Your task to perform on an android device: add a label to a message in the gmail app Image 0: 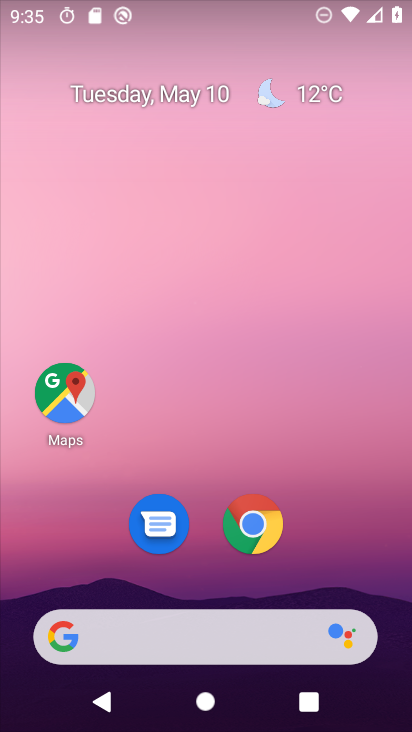
Step 0: drag from (324, 511) to (293, 24)
Your task to perform on an android device: add a label to a message in the gmail app Image 1: 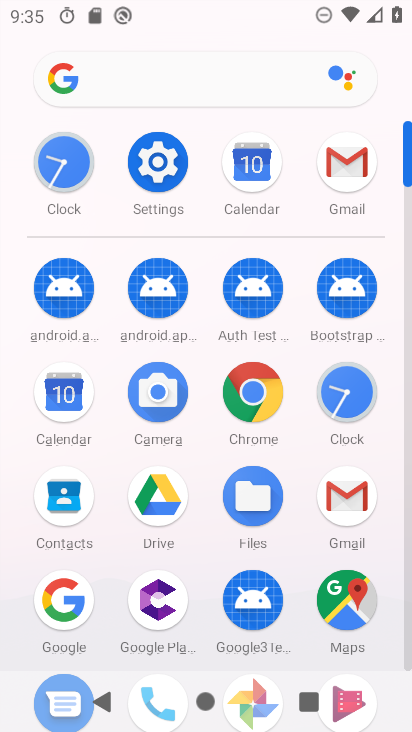
Step 1: click (342, 151)
Your task to perform on an android device: add a label to a message in the gmail app Image 2: 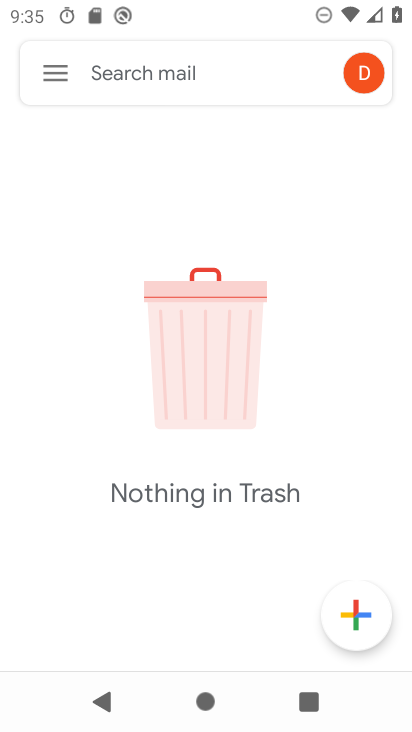
Step 2: click (50, 66)
Your task to perform on an android device: add a label to a message in the gmail app Image 3: 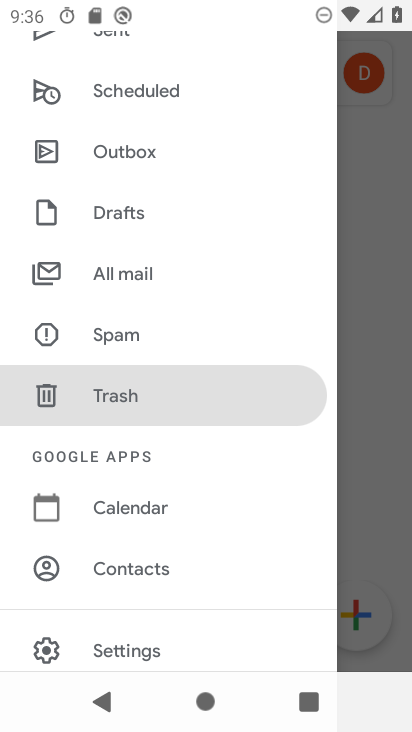
Step 3: click (130, 270)
Your task to perform on an android device: add a label to a message in the gmail app Image 4: 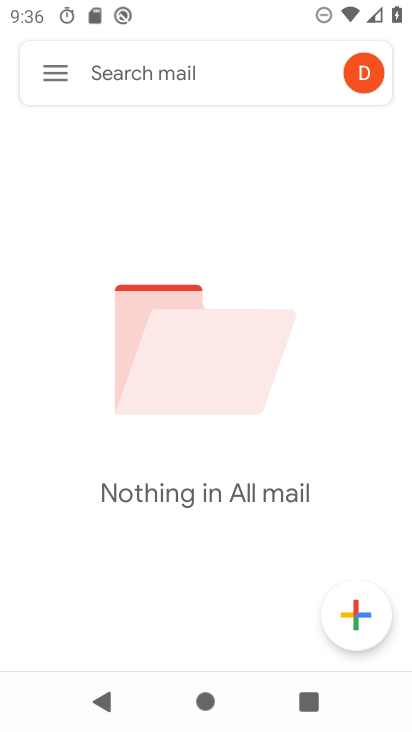
Step 4: task complete